Your task to perform on an android device: Search for vegetarian restaurants on Maps Image 0: 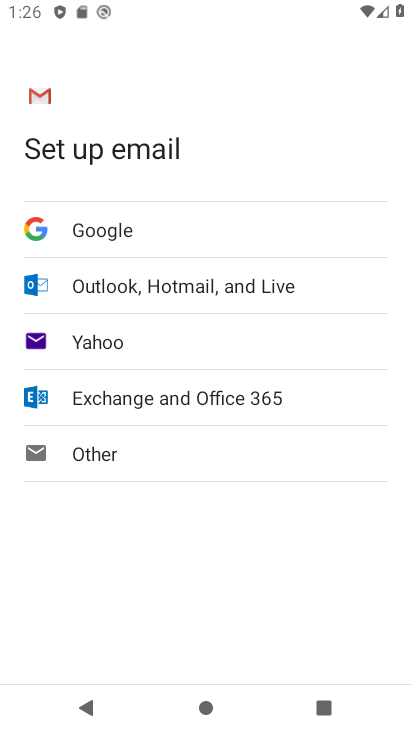
Step 0: press home button
Your task to perform on an android device: Search for vegetarian restaurants on Maps Image 1: 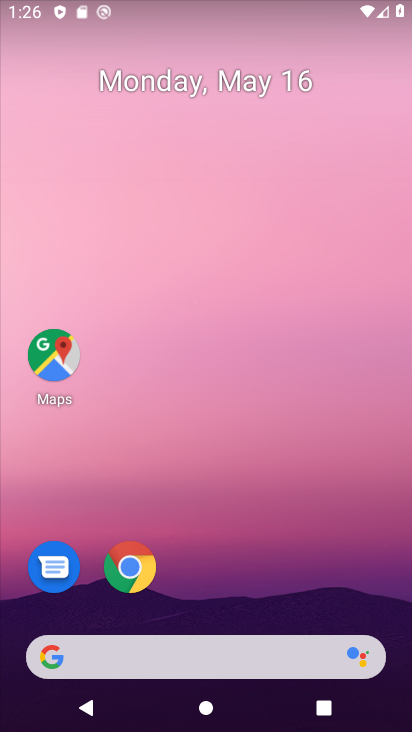
Step 1: click (52, 362)
Your task to perform on an android device: Search for vegetarian restaurants on Maps Image 2: 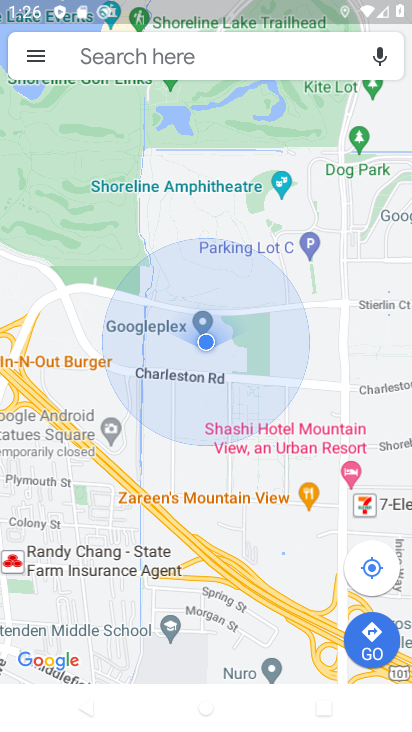
Step 2: click (219, 59)
Your task to perform on an android device: Search for vegetarian restaurants on Maps Image 3: 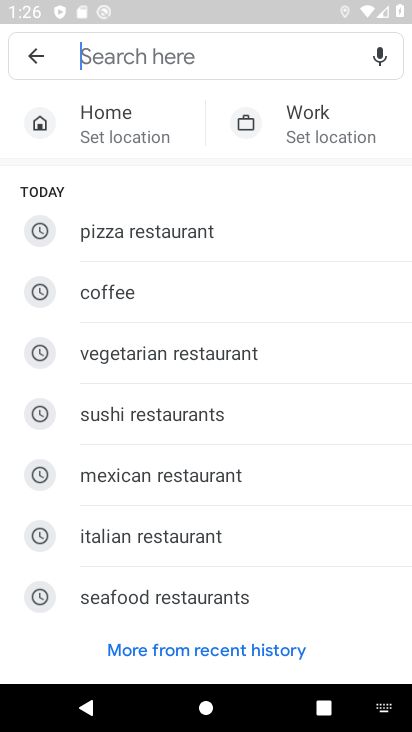
Step 3: click (239, 356)
Your task to perform on an android device: Search for vegetarian restaurants on Maps Image 4: 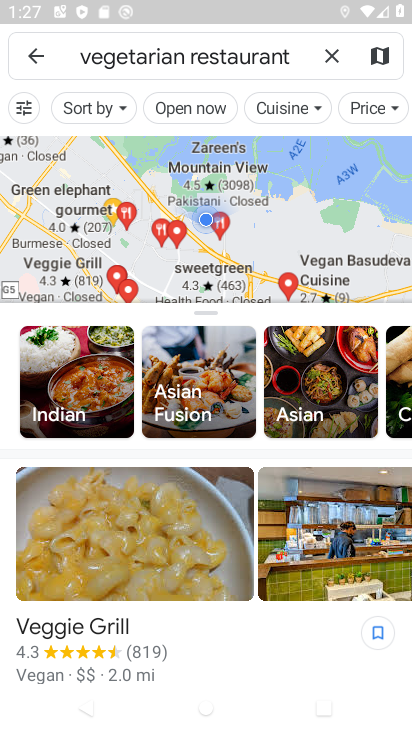
Step 4: task complete